Your task to perform on an android device: Open calendar and show me the first week of next month Image 0: 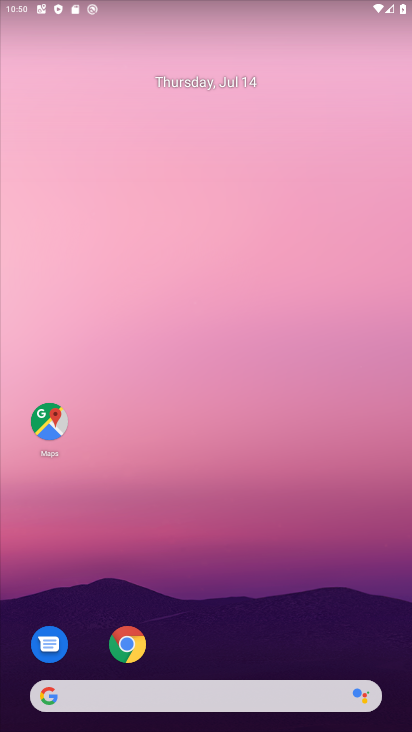
Step 0: drag from (192, 690) to (176, 92)
Your task to perform on an android device: Open calendar and show me the first week of next month Image 1: 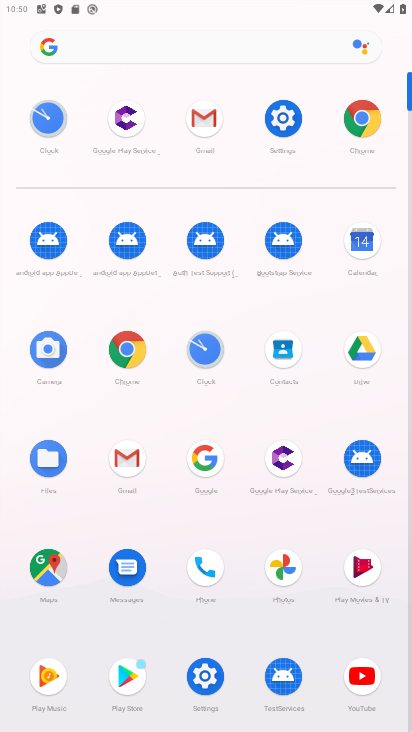
Step 1: click (360, 242)
Your task to perform on an android device: Open calendar and show me the first week of next month Image 2: 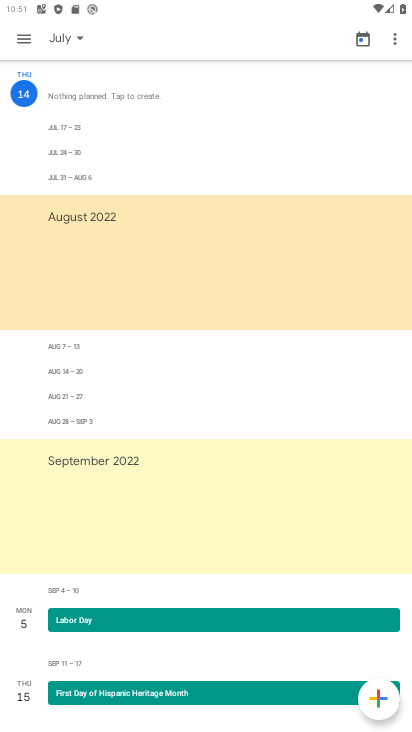
Step 2: click (22, 38)
Your task to perform on an android device: Open calendar and show me the first week of next month Image 3: 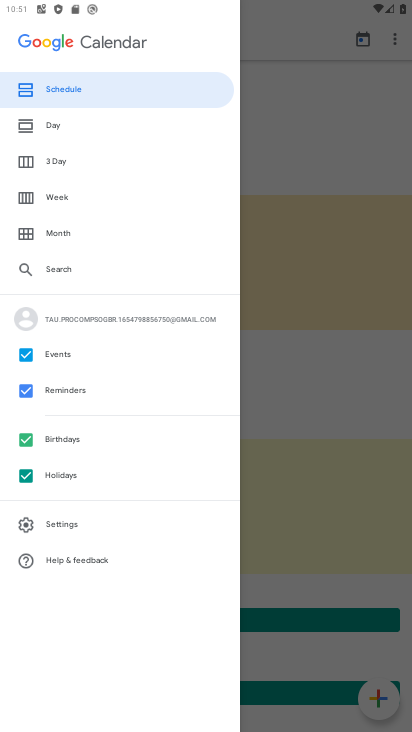
Step 3: click (63, 229)
Your task to perform on an android device: Open calendar and show me the first week of next month Image 4: 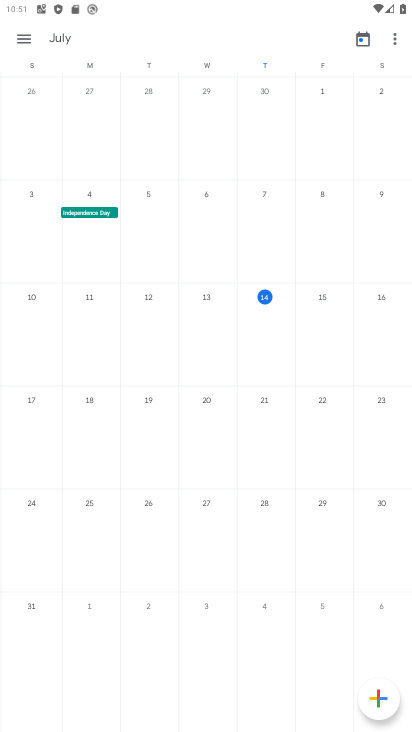
Step 4: task complete